Your task to perform on an android device: open app "Expedia: Hotels, Flights & Car" (install if not already installed) and go to login screen Image 0: 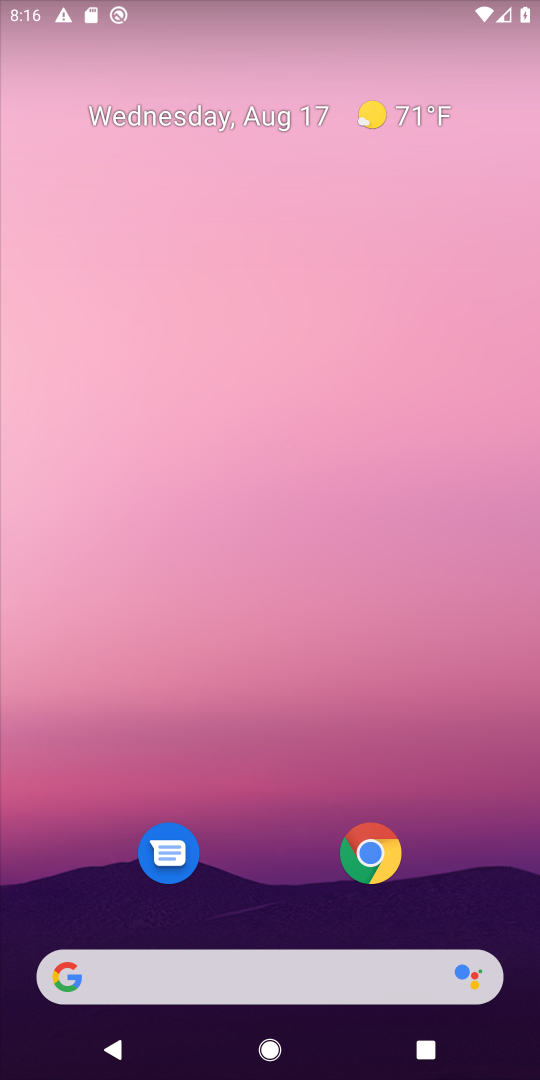
Step 0: drag from (290, 777) to (389, 111)
Your task to perform on an android device: open app "Expedia: Hotels, Flights & Car" (install if not already installed) and go to login screen Image 1: 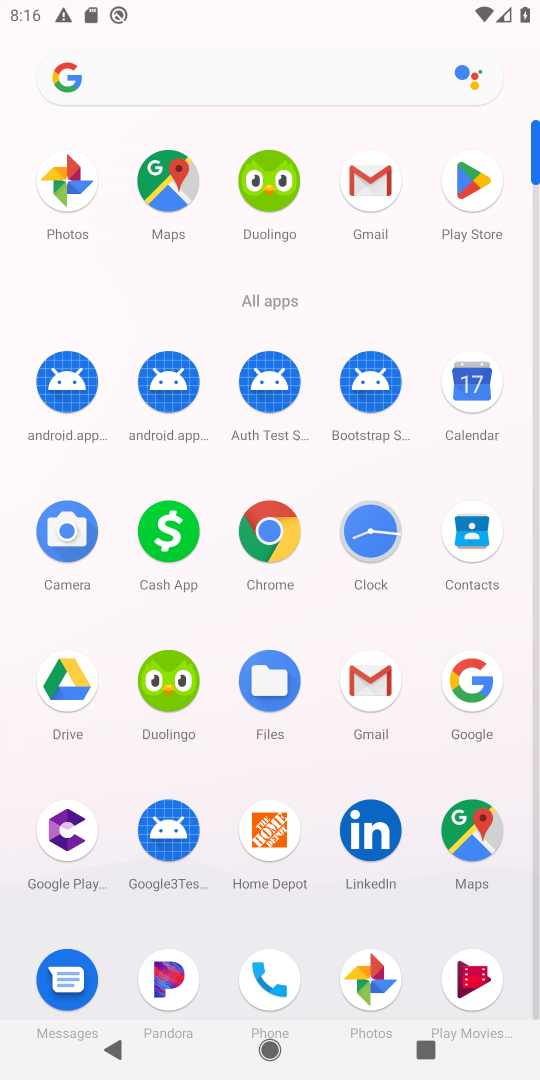
Step 1: click (458, 190)
Your task to perform on an android device: open app "Expedia: Hotels, Flights & Car" (install if not already installed) and go to login screen Image 2: 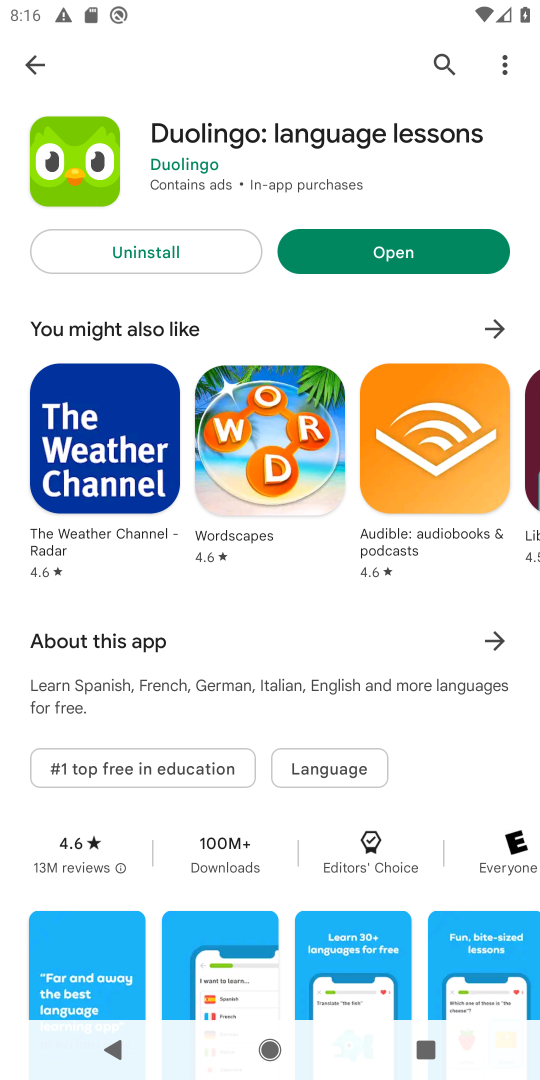
Step 2: click (447, 57)
Your task to perform on an android device: open app "Expedia: Hotels, Flights & Car" (install if not already installed) and go to login screen Image 3: 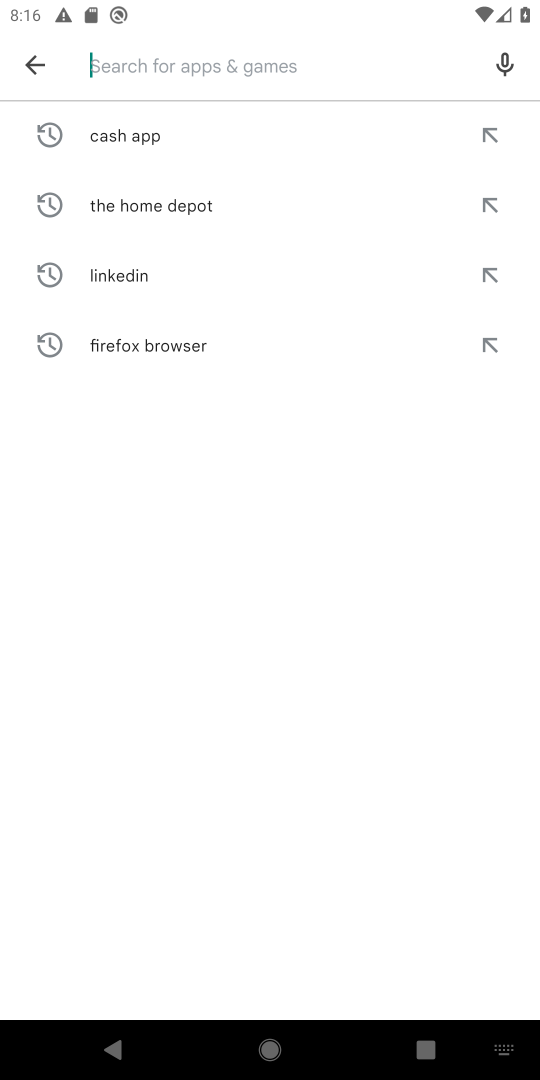
Step 3: type "Expedia: Hotels, Flights & Car"
Your task to perform on an android device: open app "Expedia: Hotels, Flights & Car" (install if not already installed) and go to login screen Image 4: 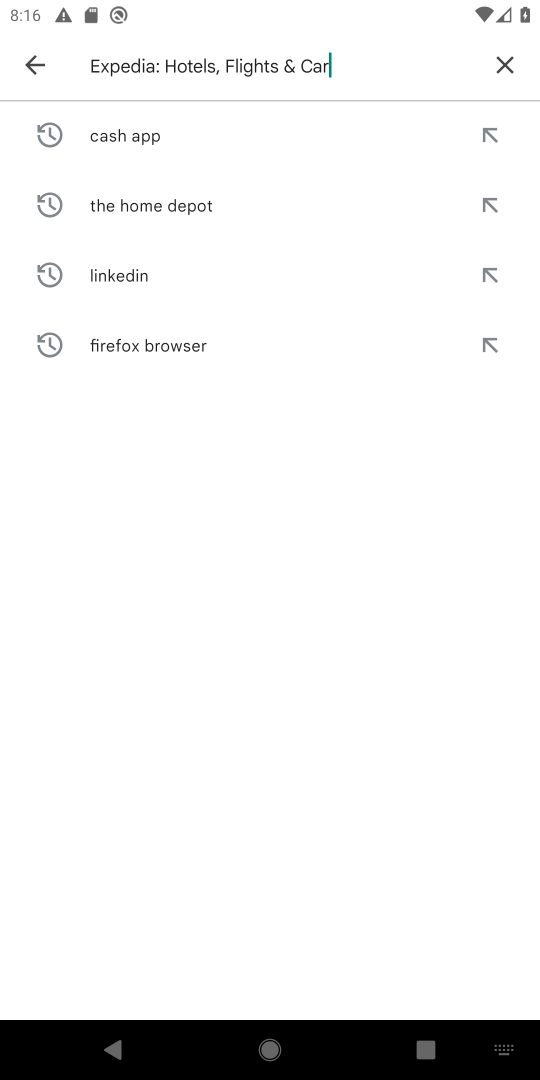
Step 4: type ""
Your task to perform on an android device: open app "Expedia: Hotels, Flights & Car" (install if not already installed) and go to login screen Image 5: 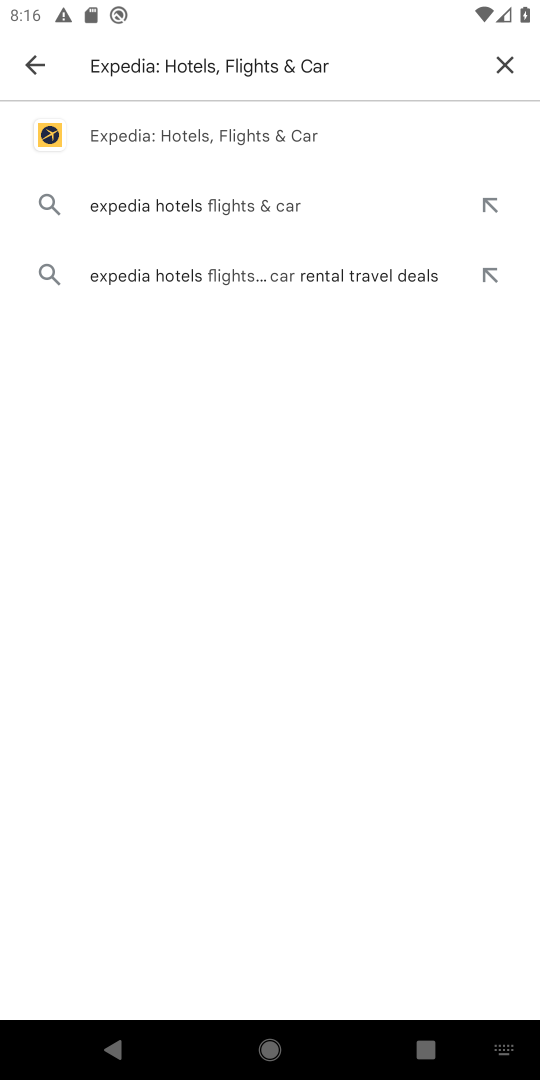
Step 5: click (247, 139)
Your task to perform on an android device: open app "Expedia: Hotels, Flights & Car" (install if not already installed) and go to login screen Image 6: 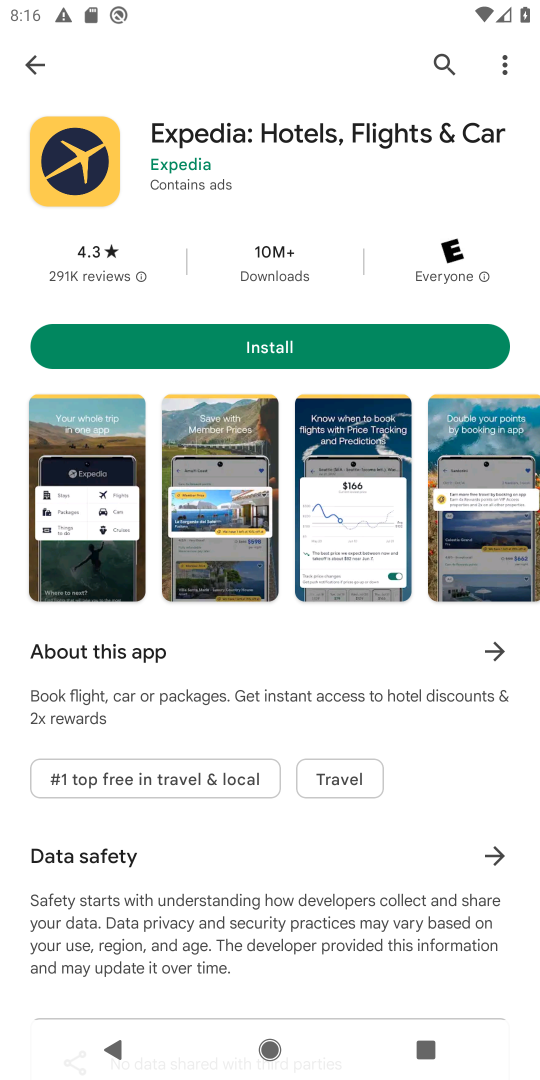
Step 6: click (292, 327)
Your task to perform on an android device: open app "Expedia: Hotels, Flights & Car" (install if not already installed) and go to login screen Image 7: 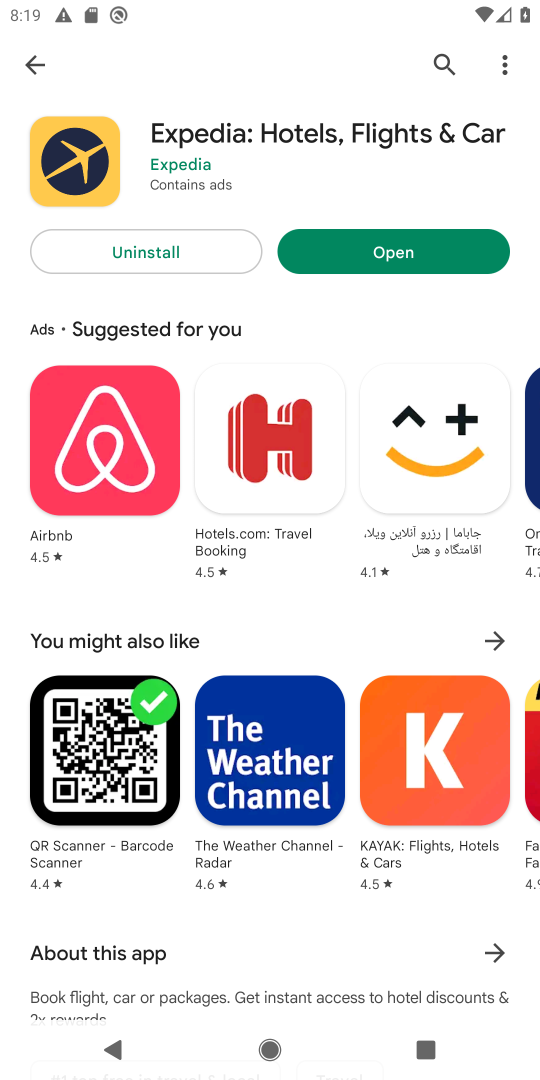
Step 7: click (384, 266)
Your task to perform on an android device: open app "Expedia: Hotels, Flights & Car" (install if not already installed) and go to login screen Image 8: 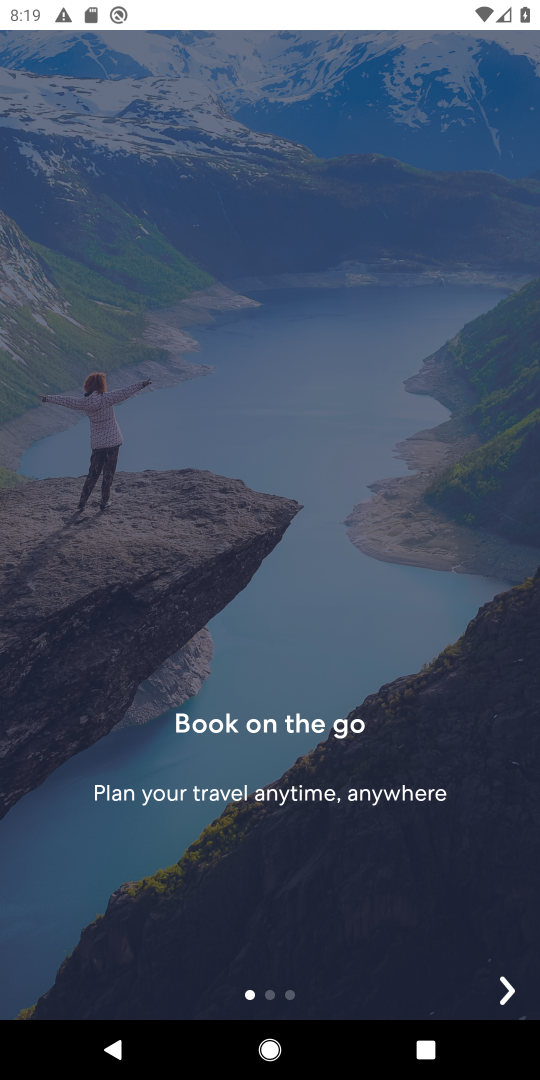
Step 8: click (518, 980)
Your task to perform on an android device: open app "Expedia: Hotels, Flights & Car" (install if not already installed) and go to login screen Image 9: 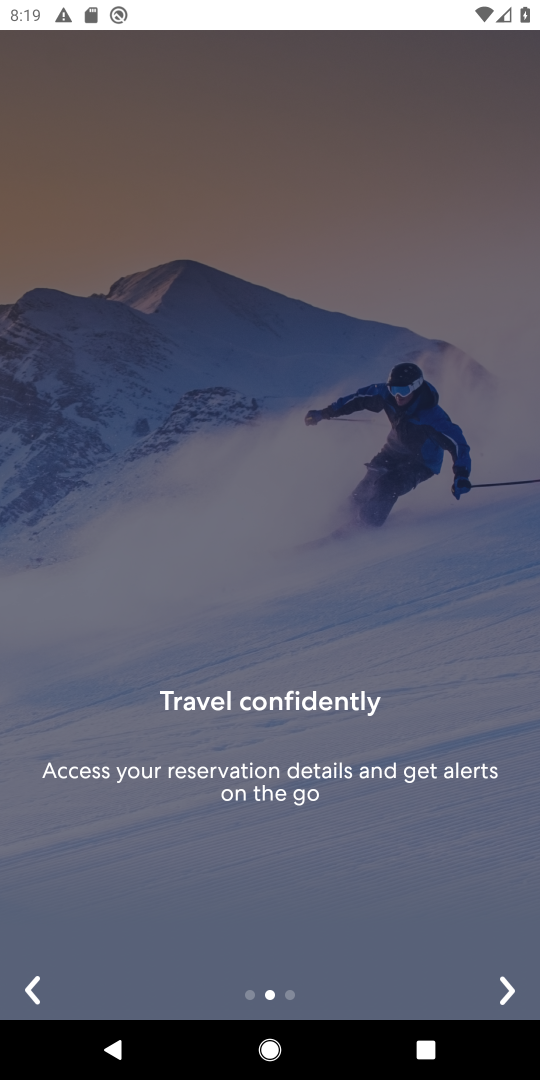
Step 9: click (498, 981)
Your task to perform on an android device: open app "Expedia: Hotels, Flights & Car" (install if not already installed) and go to login screen Image 10: 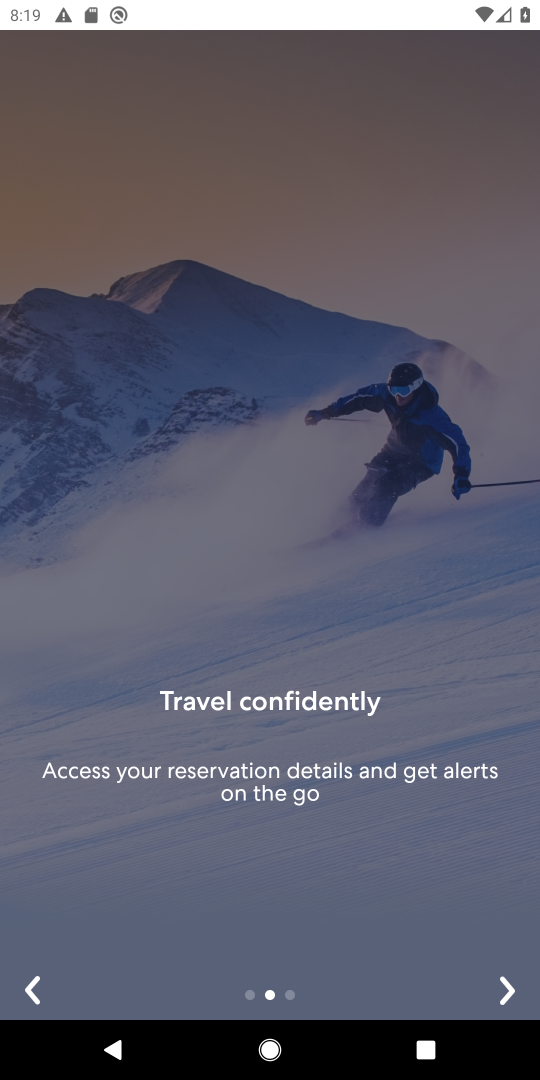
Step 10: click (498, 981)
Your task to perform on an android device: open app "Expedia: Hotels, Flights & Car" (install if not already installed) and go to login screen Image 11: 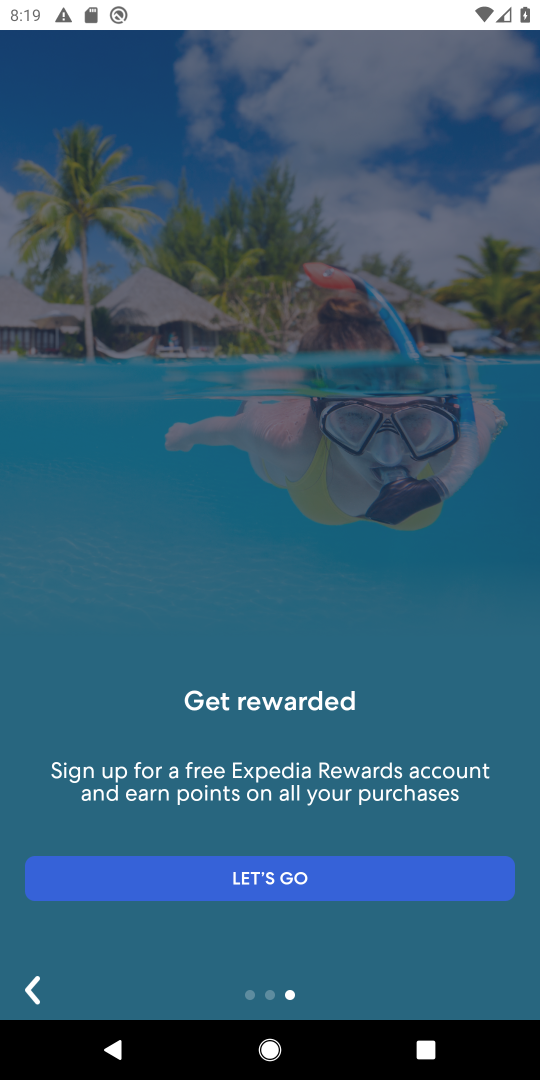
Step 11: click (310, 890)
Your task to perform on an android device: open app "Expedia: Hotels, Flights & Car" (install if not already installed) and go to login screen Image 12: 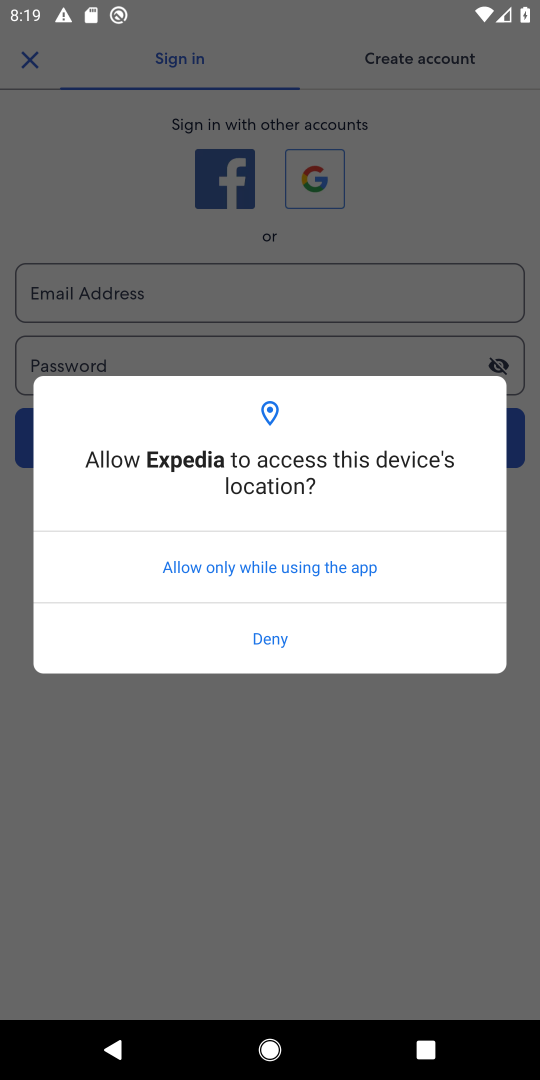
Step 12: task complete